Your task to perform on an android device: What's the weather? Image 0: 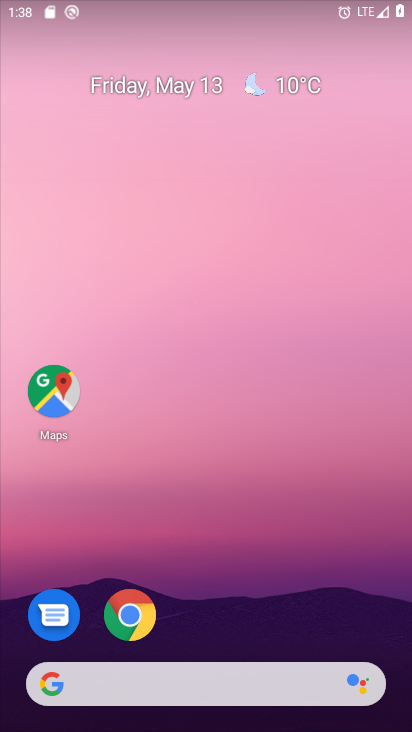
Step 0: click (298, 85)
Your task to perform on an android device: What's the weather? Image 1: 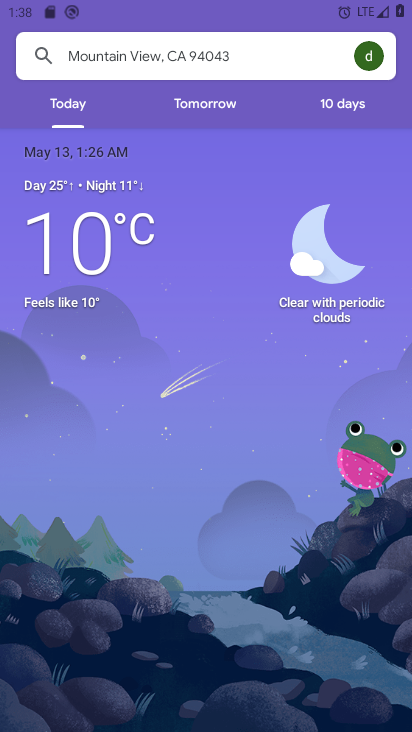
Step 1: task complete